Your task to perform on an android device: see sites visited before in the chrome app Image 0: 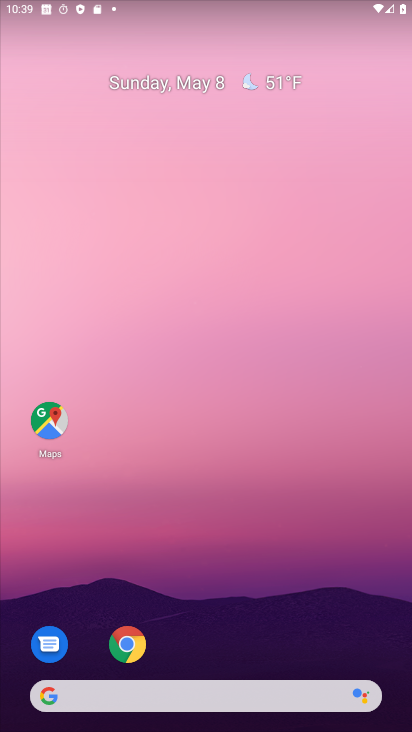
Step 0: drag from (188, 652) to (240, 78)
Your task to perform on an android device: see sites visited before in the chrome app Image 1: 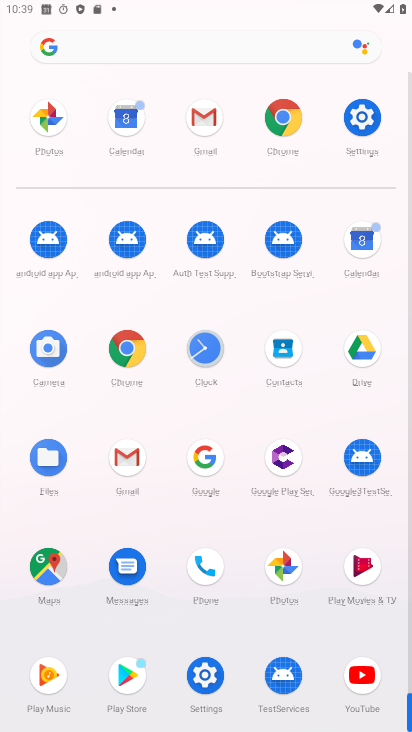
Step 1: click (128, 346)
Your task to perform on an android device: see sites visited before in the chrome app Image 2: 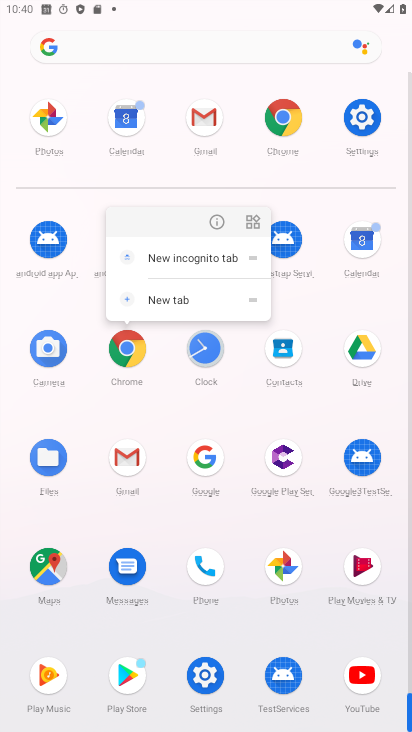
Step 2: click (223, 216)
Your task to perform on an android device: see sites visited before in the chrome app Image 3: 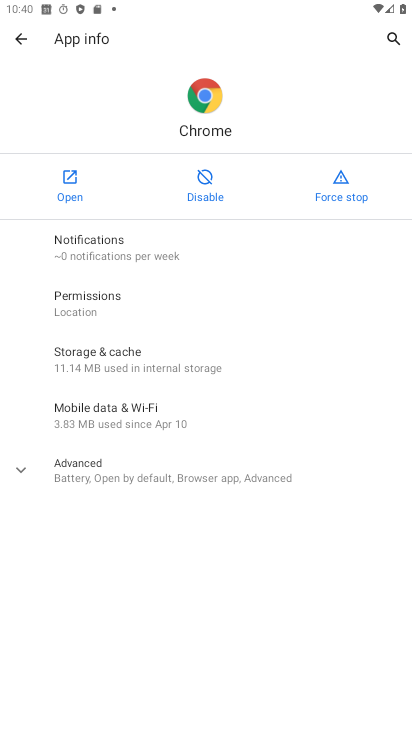
Step 3: click (63, 184)
Your task to perform on an android device: see sites visited before in the chrome app Image 4: 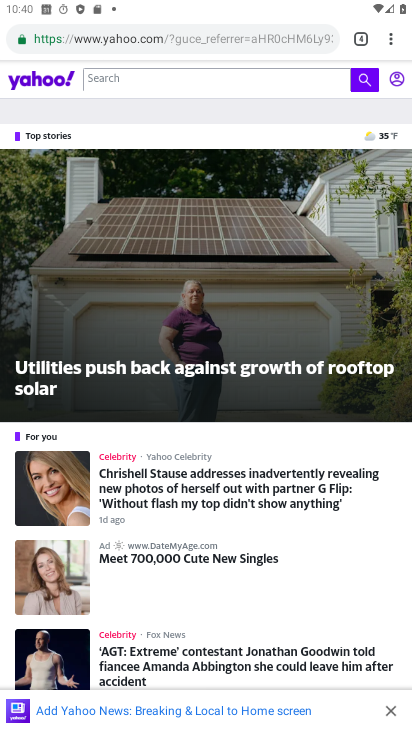
Step 4: task complete